Your task to perform on an android device: Play the last video I watched on Youtube Image 0: 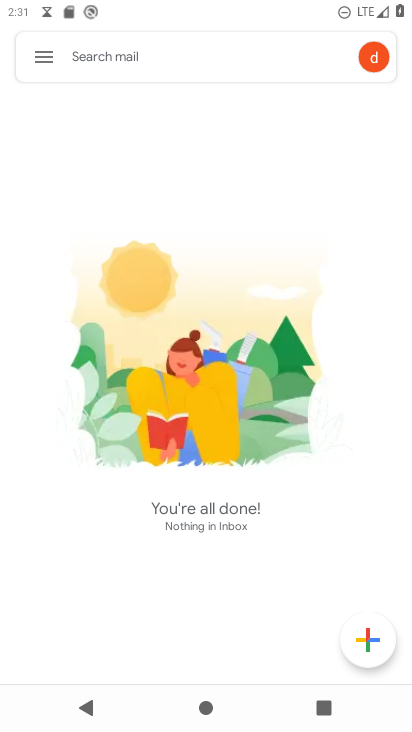
Step 0: press home button
Your task to perform on an android device: Play the last video I watched on Youtube Image 1: 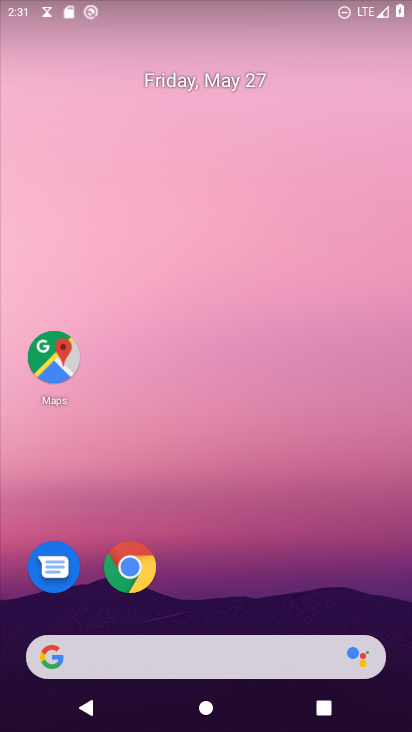
Step 1: drag from (228, 592) to (193, 198)
Your task to perform on an android device: Play the last video I watched on Youtube Image 2: 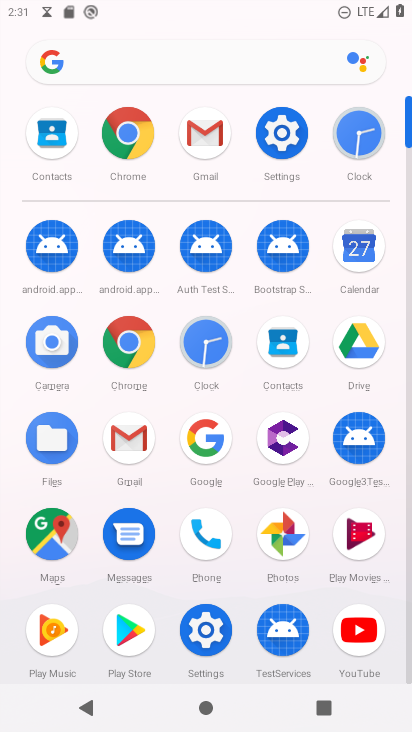
Step 2: click (365, 638)
Your task to perform on an android device: Play the last video I watched on Youtube Image 3: 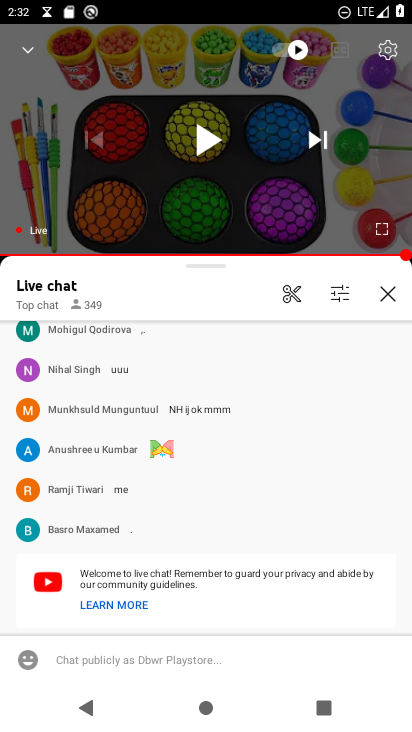
Step 3: press back button
Your task to perform on an android device: Play the last video I watched on Youtube Image 4: 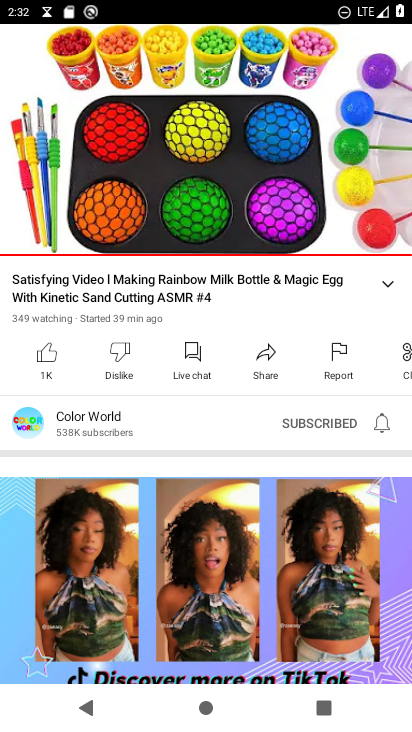
Step 4: press back button
Your task to perform on an android device: Play the last video I watched on Youtube Image 5: 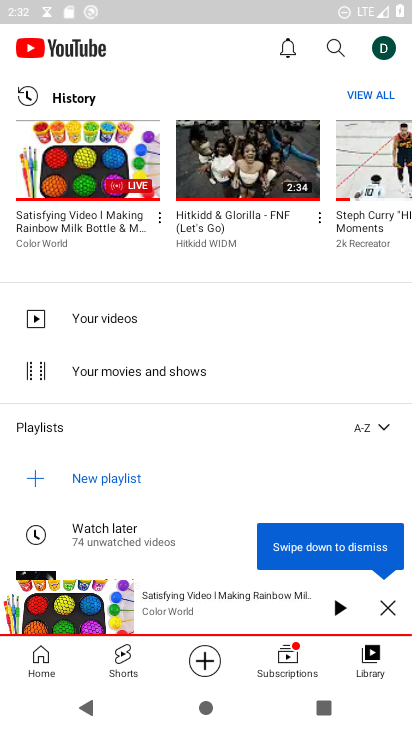
Step 5: click (374, 654)
Your task to perform on an android device: Play the last video I watched on Youtube Image 6: 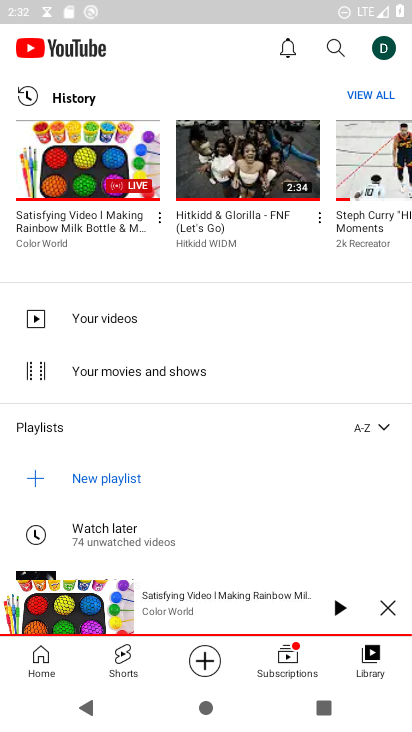
Step 6: click (82, 166)
Your task to perform on an android device: Play the last video I watched on Youtube Image 7: 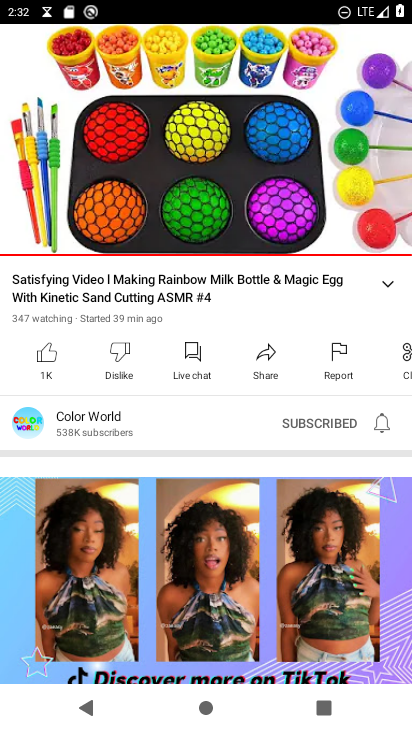
Step 7: task complete